Your task to perform on an android device: check data usage Image 0: 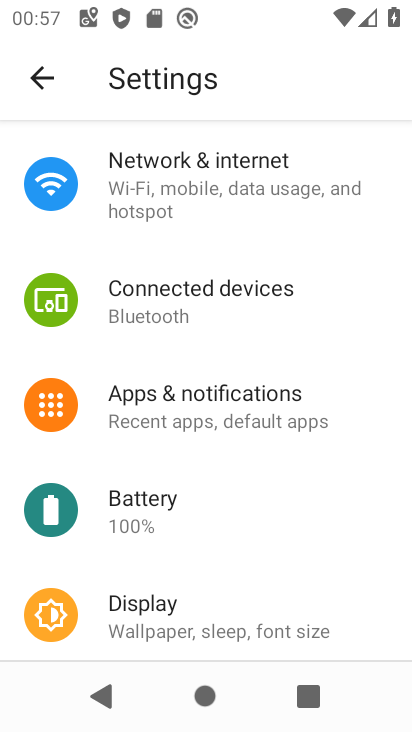
Step 0: click (241, 187)
Your task to perform on an android device: check data usage Image 1: 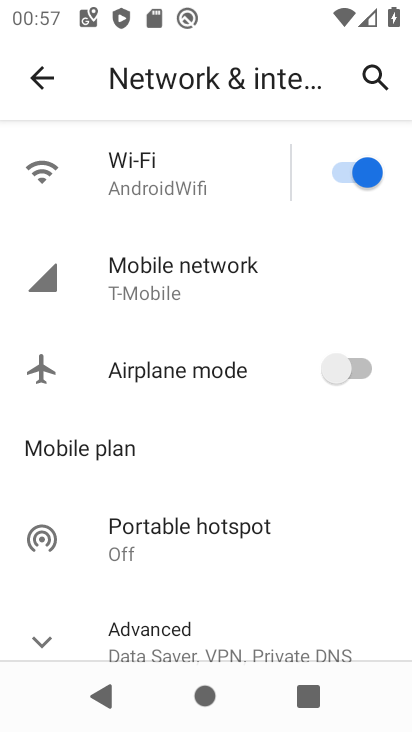
Step 1: click (166, 285)
Your task to perform on an android device: check data usage Image 2: 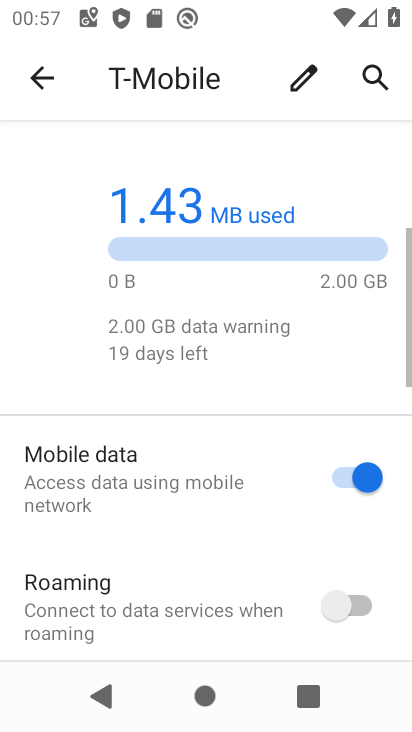
Step 2: drag from (165, 584) to (266, 100)
Your task to perform on an android device: check data usage Image 3: 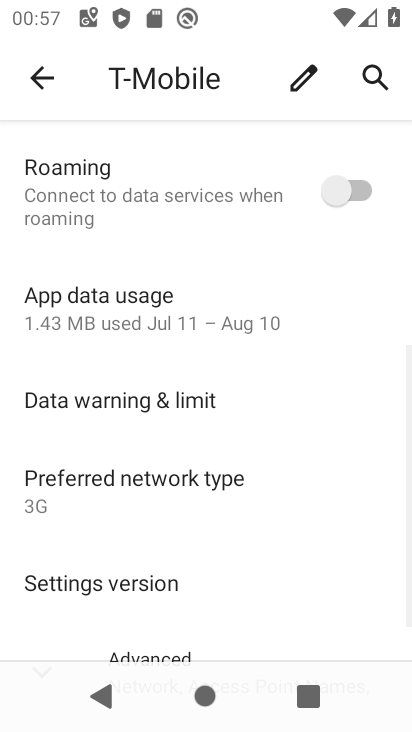
Step 3: click (97, 294)
Your task to perform on an android device: check data usage Image 4: 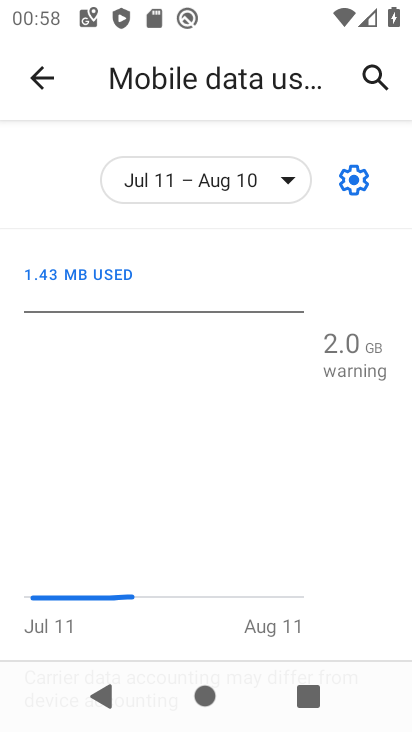
Step 4: task complete